Your task to perform on an android device: toggle data saver in the chrome app Image 0: 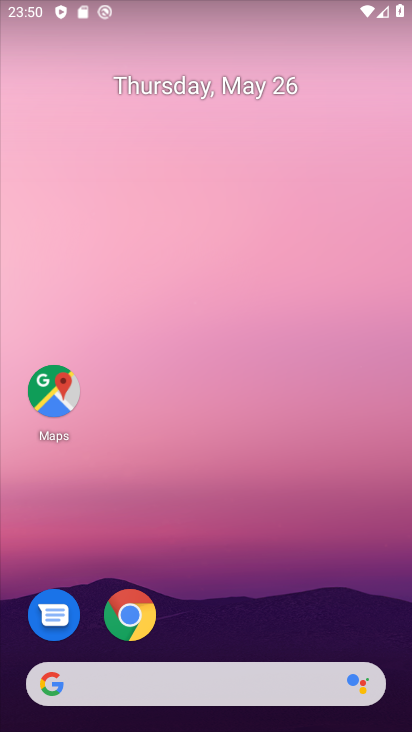
Step 0: drag from (303, 618) to (349, 237)
Your task to perform on an android device: toggle data saver in the chrome app Image 1: 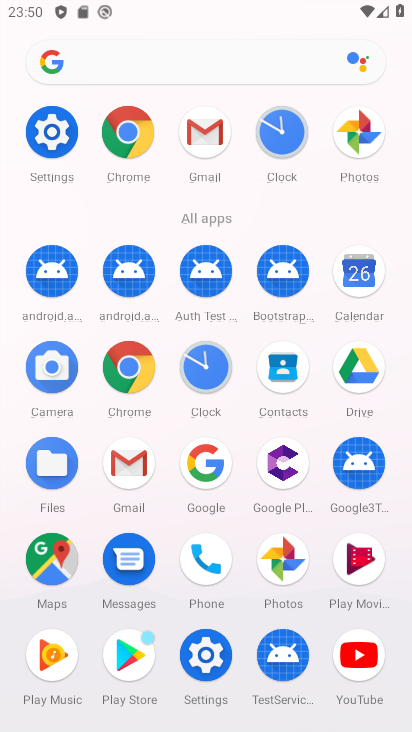
Step 1: click (135, 372)
Your task to perform on an android device: toggle data saver in the chrome app Image 2: 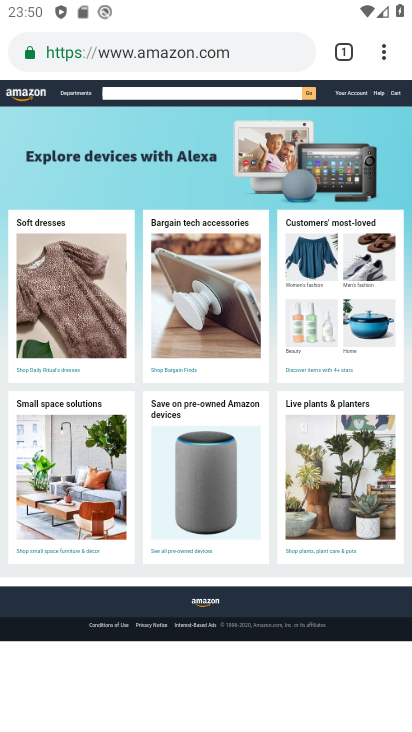
Step 2: click (383, 53)
Your task to perform on an android device: toggle data saver in the chrome app Image 3: 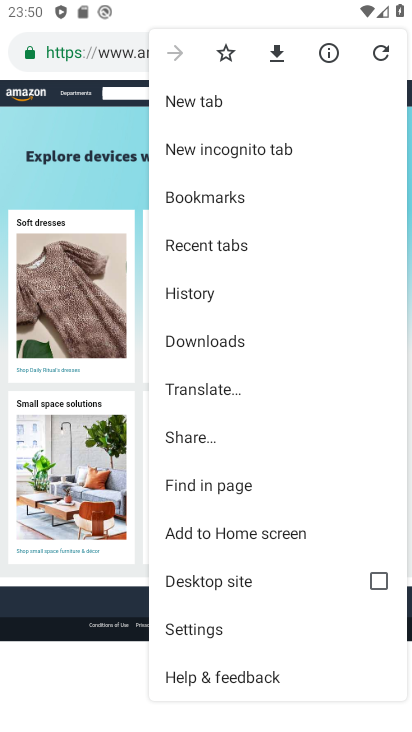
Step 3: click (229, 633)
Your task to perform on an android device: toggle data saver in the chrome app Image 4: 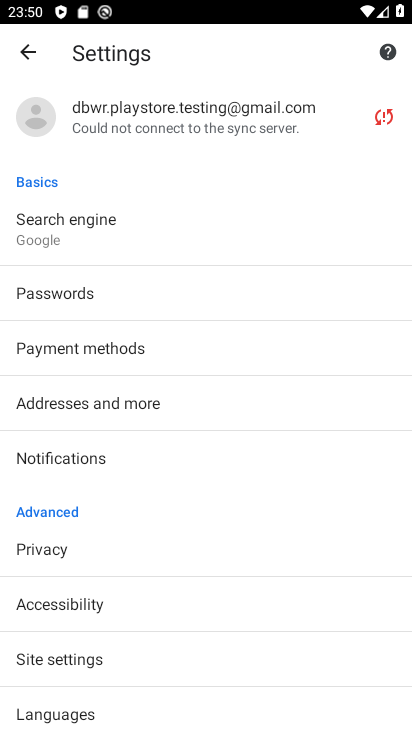
Step 4: drag from (283, 626) to (303, 428)
Your task to perform on an android device: toggle data saver in the chrome app Image 5: 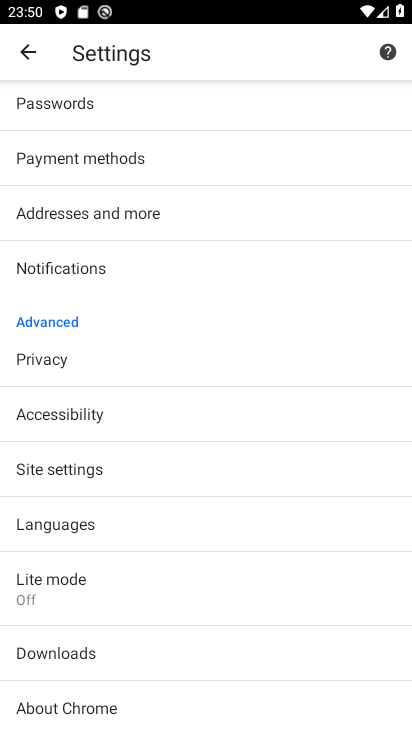
Step 5: drag from (302, 622) to (331, 472)
Your task to perform on an android device: toggle data saver in the chrome app Image 6: 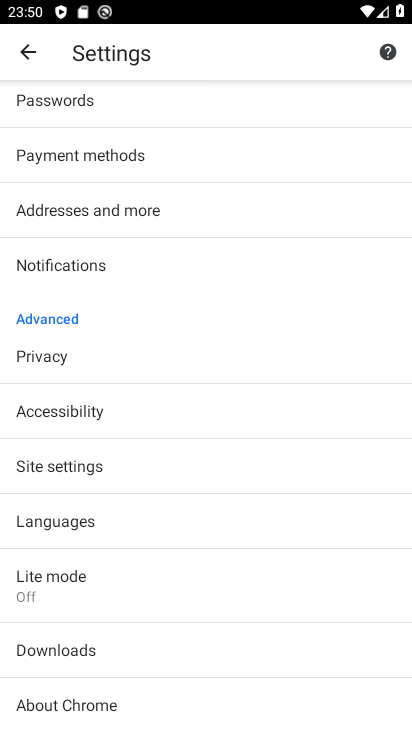
Step 6: click (151, 598)
Your task to perform on an android device: toggle data saver in the chrome app Image 7: 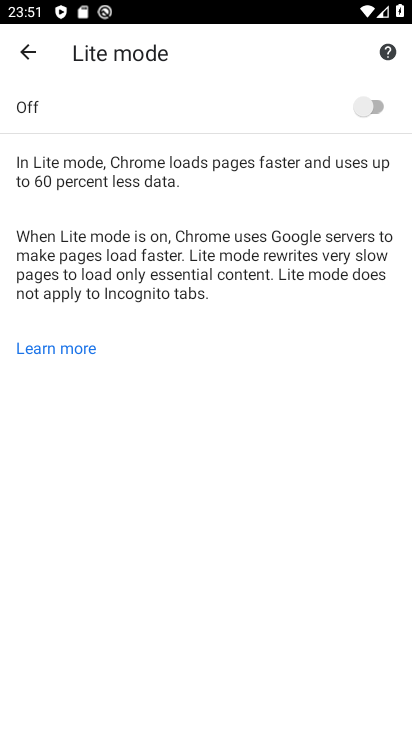
Step 7: click (363, 108)
Your task to perform on an android device: toggle data saver in the chrome app Image 8: 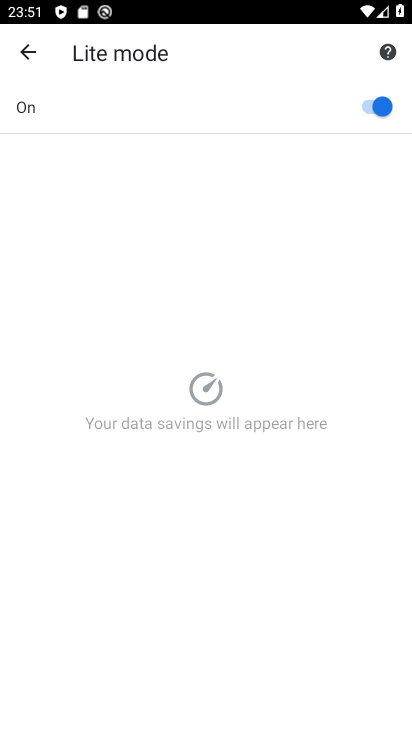
Step 8: task complete